Your task to perform on an android device: set the timer Image 0: 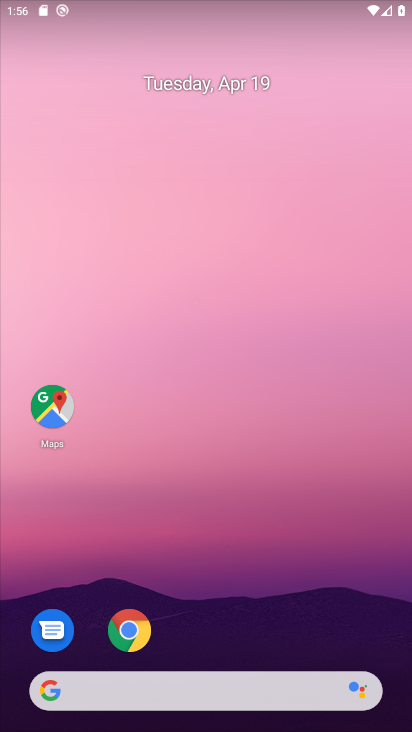
Step 0: drag from (229, 622) to (293, 29)
Your task to perform on an android device: set the timer Image 1: 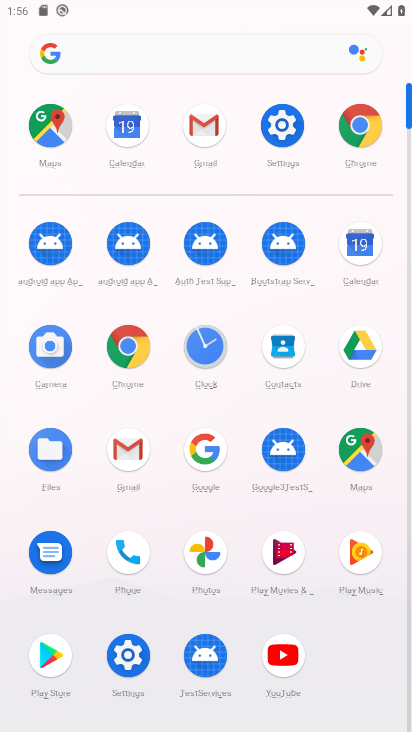
Step 1: click (207, 353)
Your task to perform on an android device: set the timer Image 2: 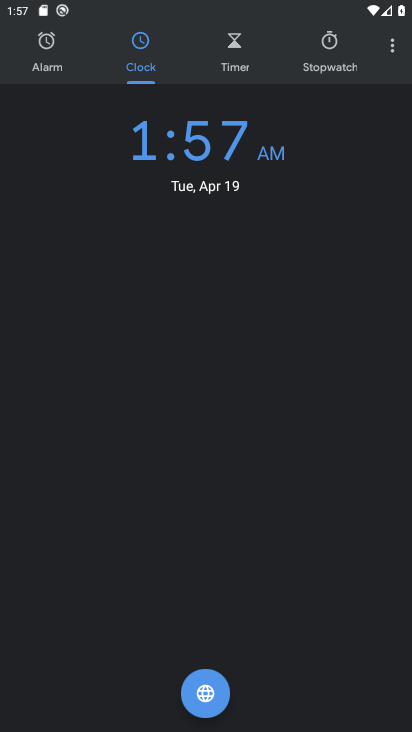
Step 2: click (250, 58)
Your task to perform on an android device: set the timer Image 3: 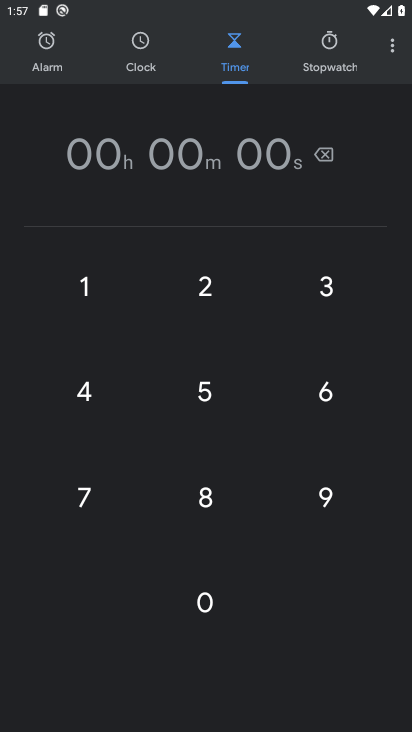
Step 3: click (214, 582)
Your task to perform on an android device: set the timer Image 4: 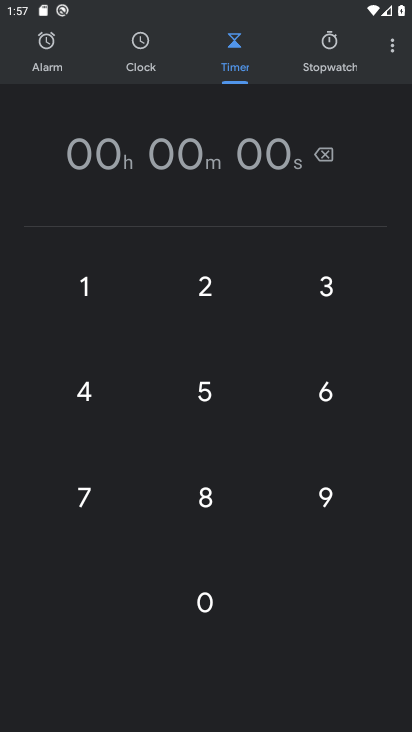
Step 4: click (198, 492)
Your task to perform on an android device: set the timer Image 5: 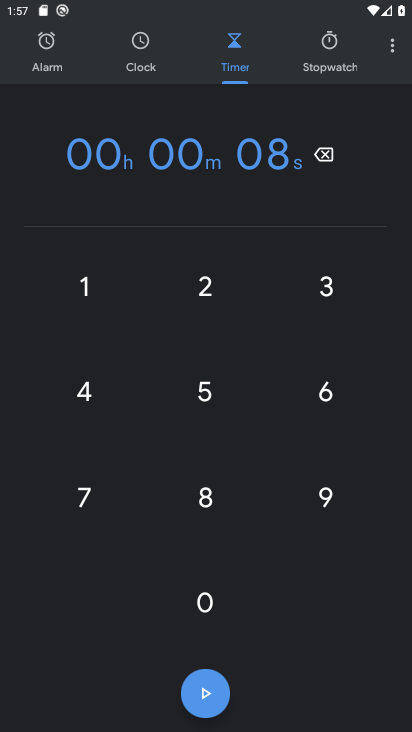
Step 5: click (212, 392)
Your task to perform on an android device: set the timer Image 6: 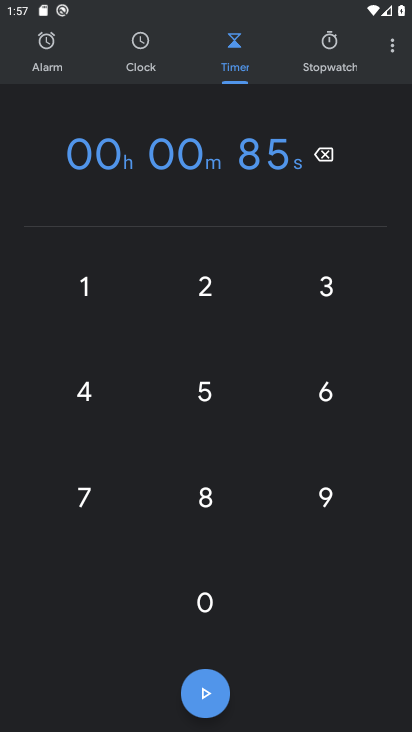
Step 6: click (217, 330)
Your task to perform on an android device: set the timer Image 7: 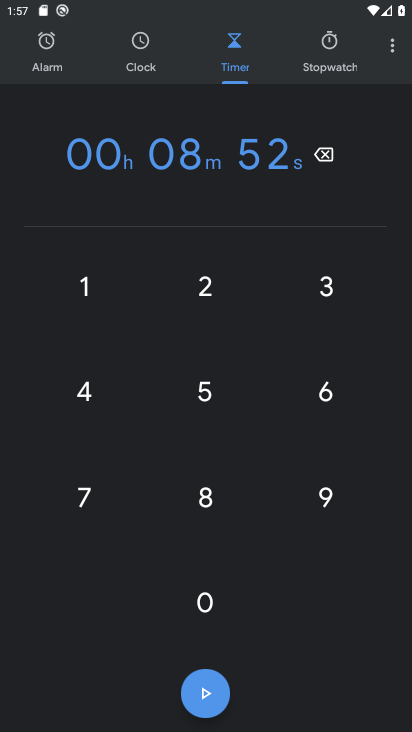
Step 7: click (326, 384)
Your task to perform on an android device: set the timer Image 8: 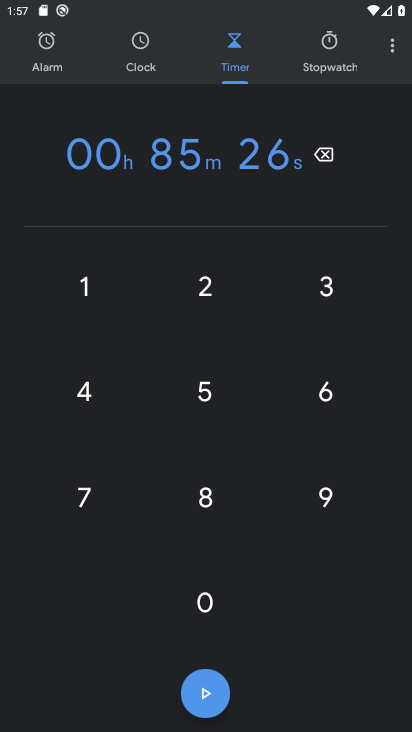
Step 8: click (317, 318)
Your task to perform on an android device: set the timer Image 9: 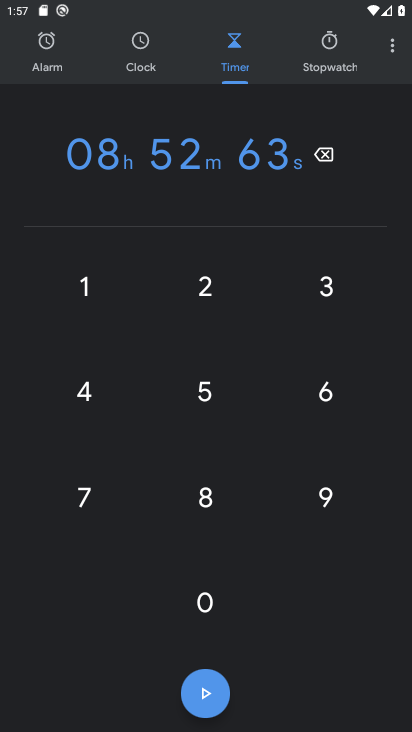
Step 9: click (130, 371)
Your task to perform on an android device: set the timer Image 10: 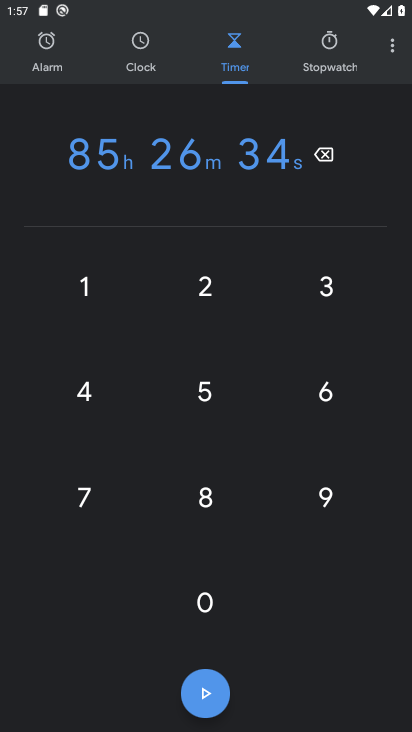
Step 10: click (201, 679)
Your task to perform on an android device: set the timer Image 11: 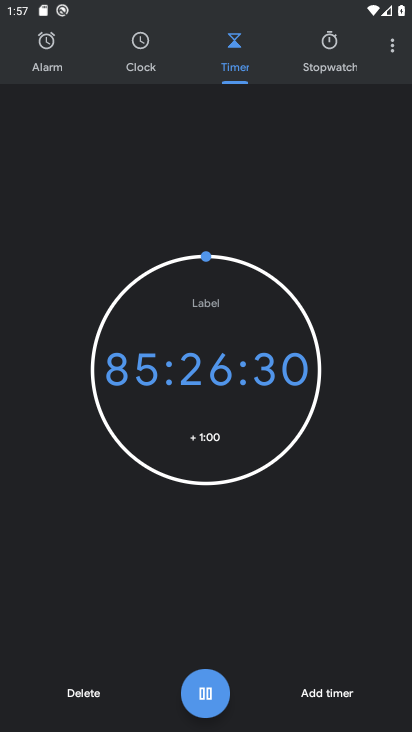
Step 11: task complete